Your task to perform on an android device: What's the news in Malaysia? Image 0: 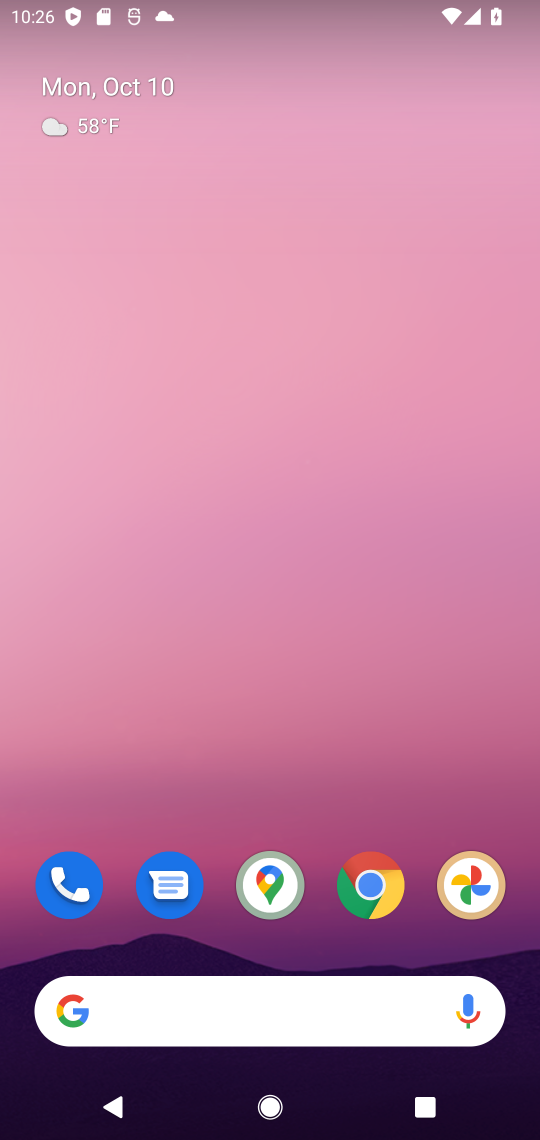
Step 0: click (354, 897)
Your task to perform on an android device: What's the news in Malaysia? Image 1: 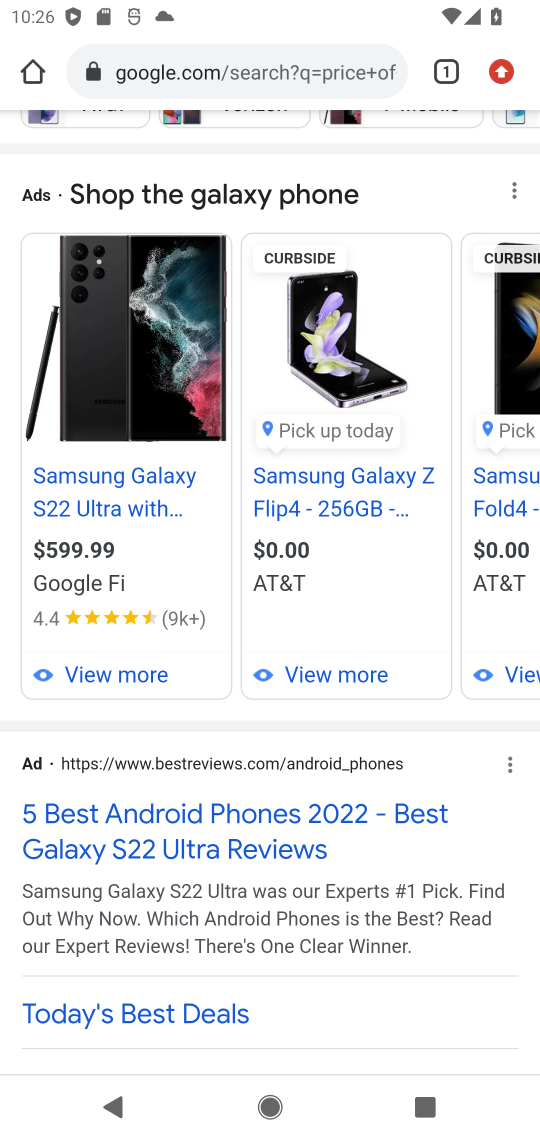
Step 1: click (215, 75)
Your task to perform on an android device: What's the news in Malaysia? Image 2: 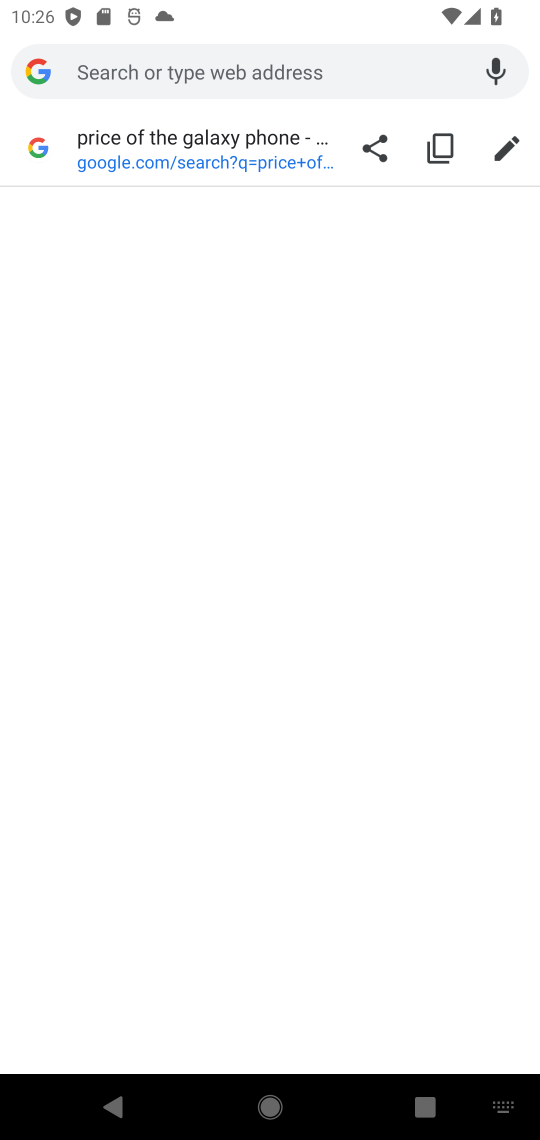
Step 2: type "malaysia"
Your task to perform on an android device: What's the news in Malaysia? Image 3: 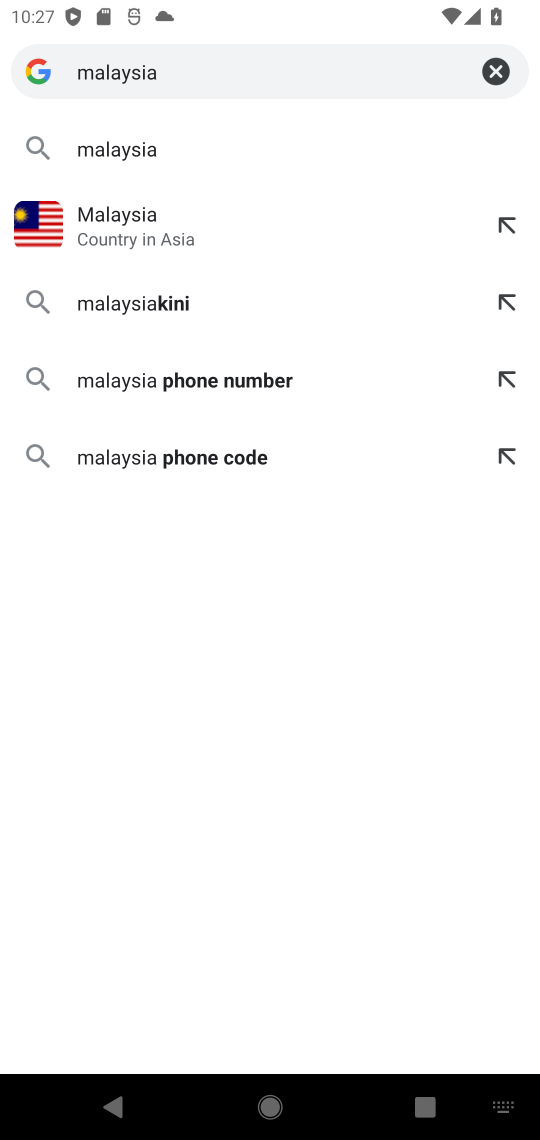
Step 3: click (239, 150)
Your task to perform on an android device: What's the news in Malaysia? Image 4: 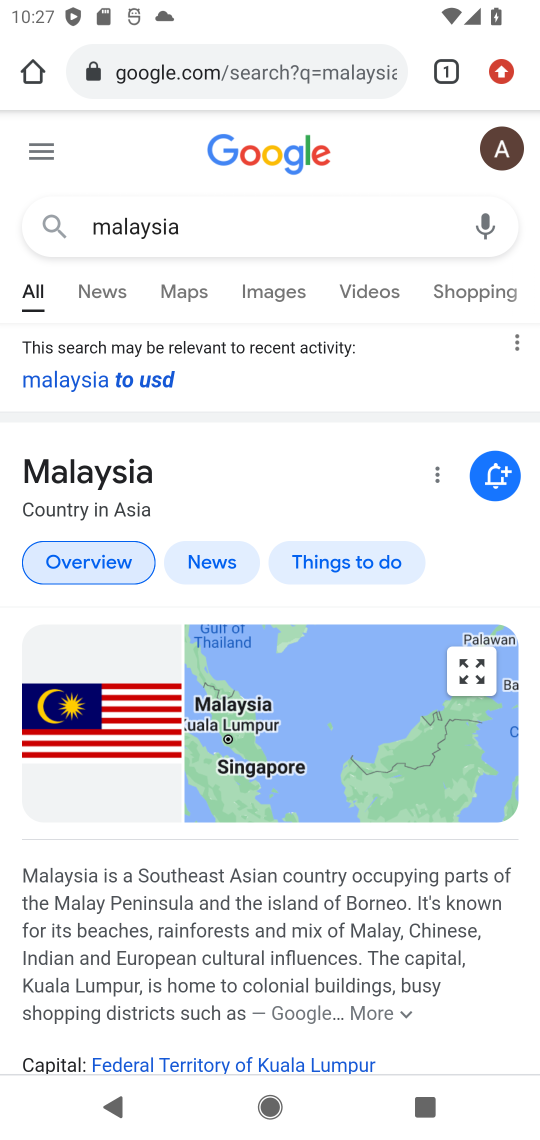
Step 4: drag from (348, 529) to (333, 349)
Your task to perform on an android device: What's the news in Malaysia? Image 5: 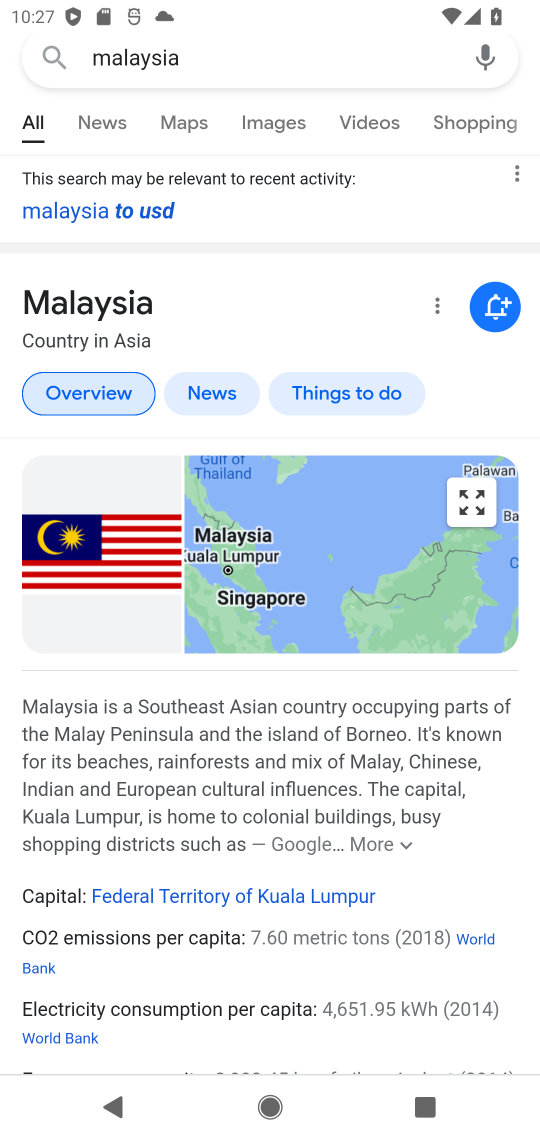
Step 5: click (129, 122)
Your task to perform on an android device: What's the news in Malaysia? Image 6: 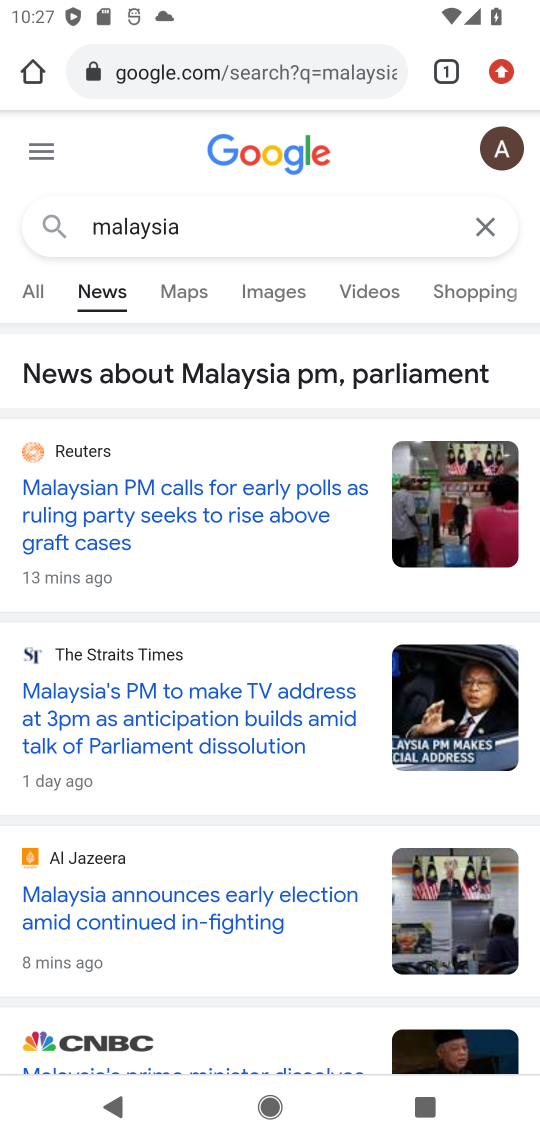
Step 6: task complete